Your task to perform on an android device: Check the weather Image 0: 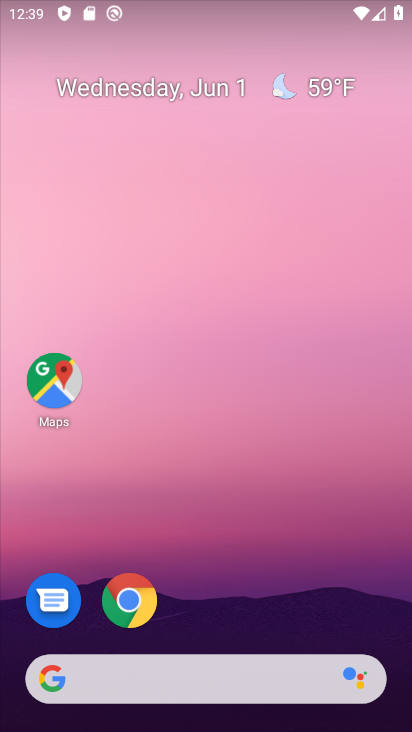
Step 0: click (350, 106)
Your task to perform on an android device: Check the weather Image 1: 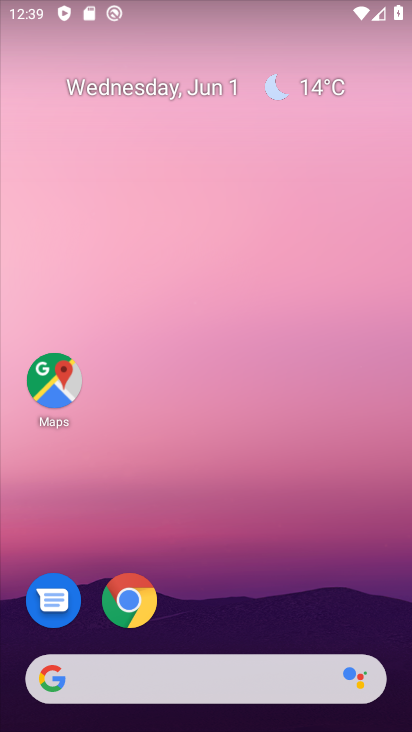
Step 1: click (338, 89)
Your task to perform on an android device: Check the weather Image 2: 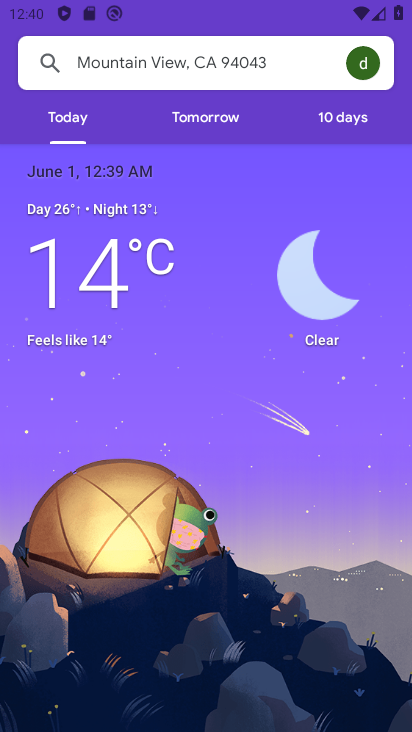
Step 2: task complete